Your task to perform on an android device: Search for sushi restaurants on Maps Image 0: 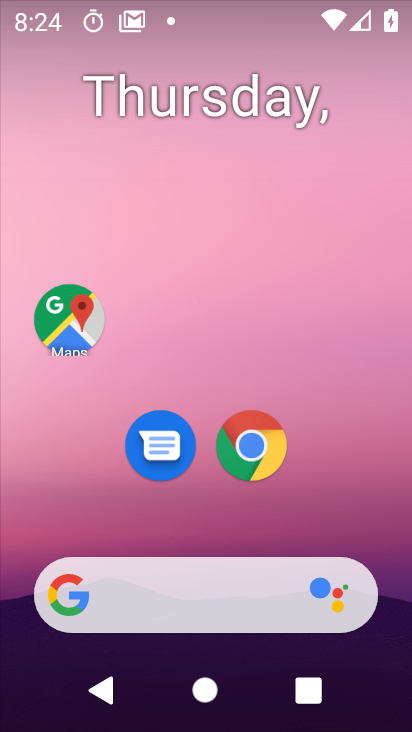
Step 0: click (71, 301)
Your task to perform on an android device: Search for sushi restaurants on Maps Image 1: 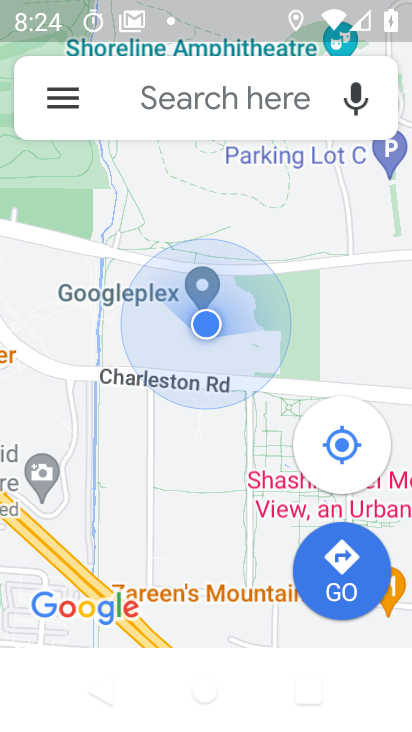
Step 1: click (205, 72)
Your task to perform on an android device: Search for sushi restaurants on Maps Image 2: 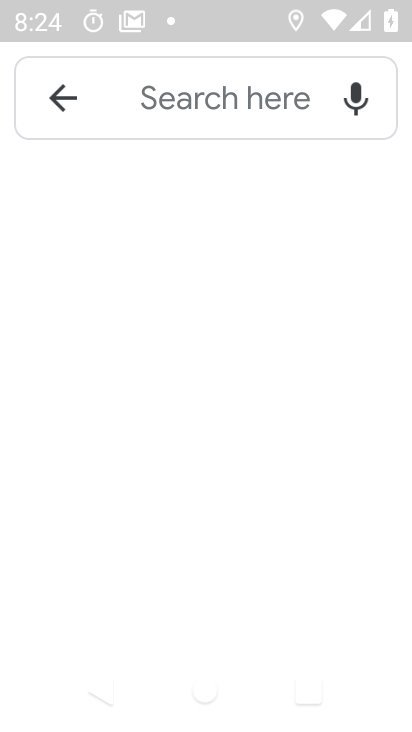
Step 2: click (194, 102)
Your task to perform on an android device: Search for sushi restaurants on Maps Image 3: 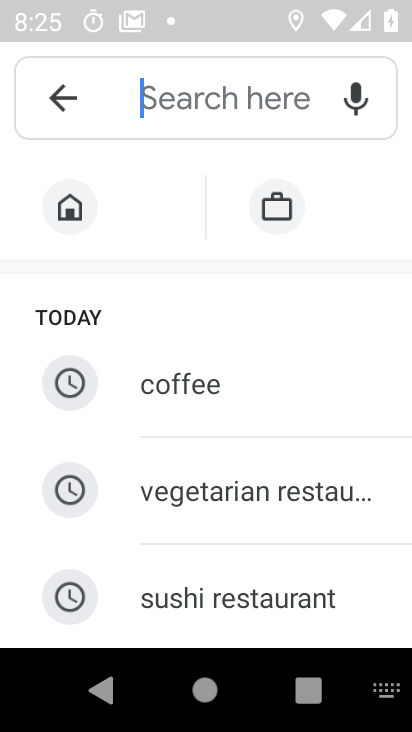
Step 3: type "sushi restaurants"
Your task to perform on an android device: Search for sushi restaurants on Maps Image 4: 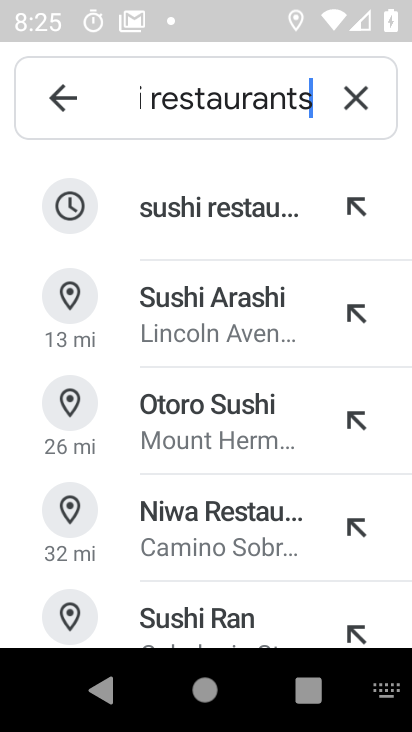
Step 4: click (186, 205)
Your task to perform on an android device: Search for sushi restaurants on Maps Image 5: 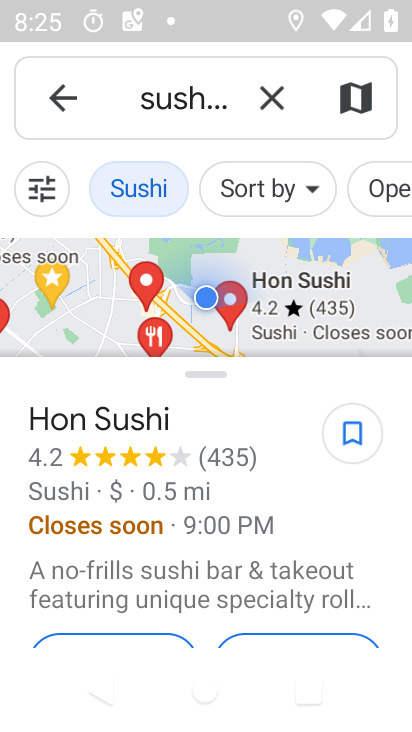
Step 5: task complete